Your task to perform on an android device: Open the calendar and show me this week's events Image 0: 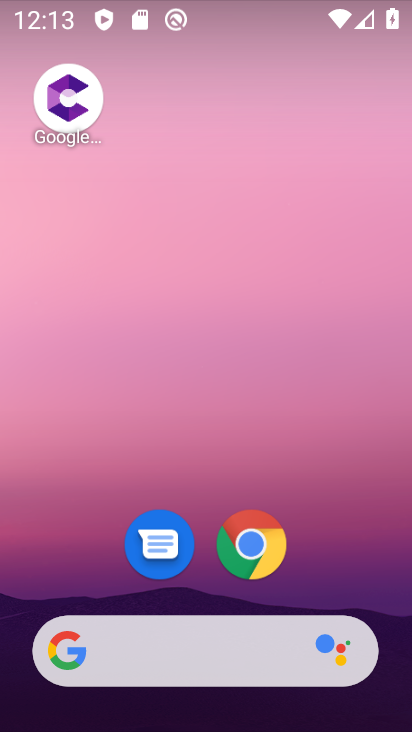
Step 0: drag from (337, 524) to (309, 36)
Your task to perform on an android device: Open the calendar and show me this week's events Image 1: 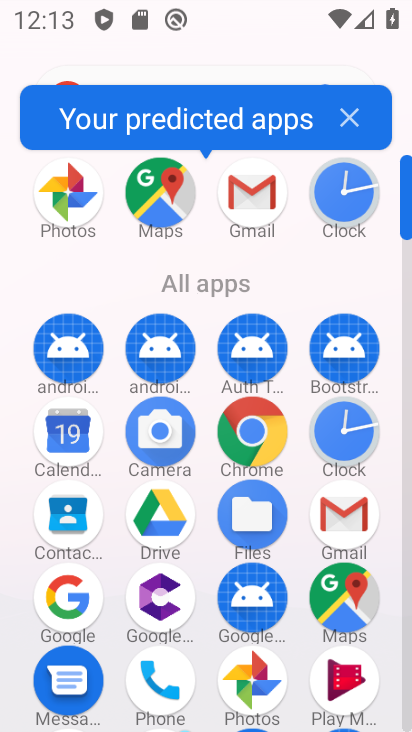
Step 1: click (49, 435)
Your task to perform on an android device: Open the calendar and show me this week's events Image 2: 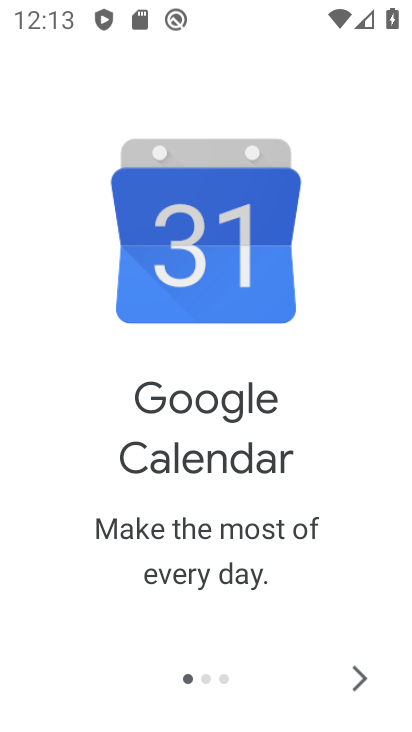
Step 2: click (360, 672)
Your task to perform on an android device: Open the calendar and show me this week's events Image 3: 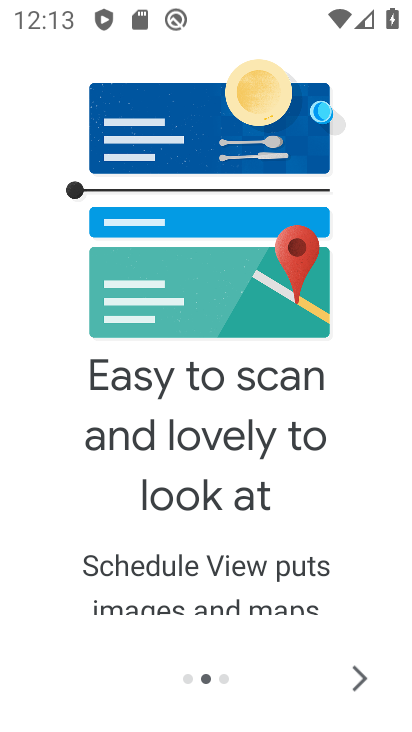
Step 3: click (360, 671)
Your task to perform on an android device: Open the calendar and show me this week's events Image 4: 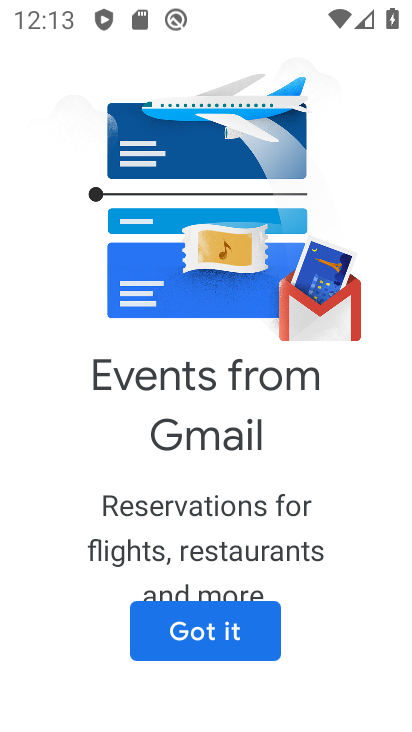
Step 4: click (244, 622)
Your task to perform on an android device: Open the calendar and show me this week's events Image 5: 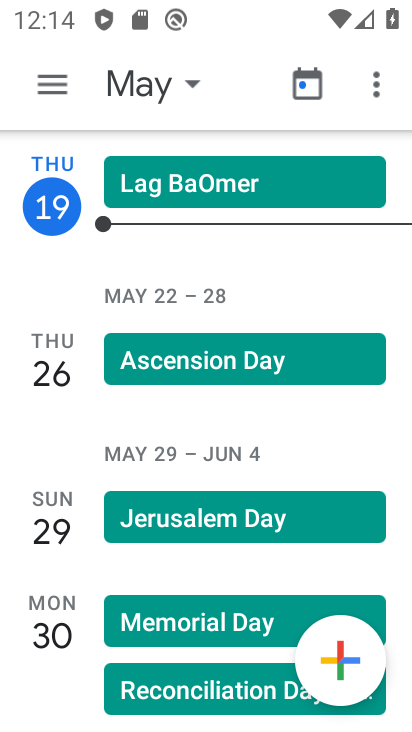
Step 5: click (169, 92)
Your task to perform on an android device: Open the calendar and show me this week's events Image 6: 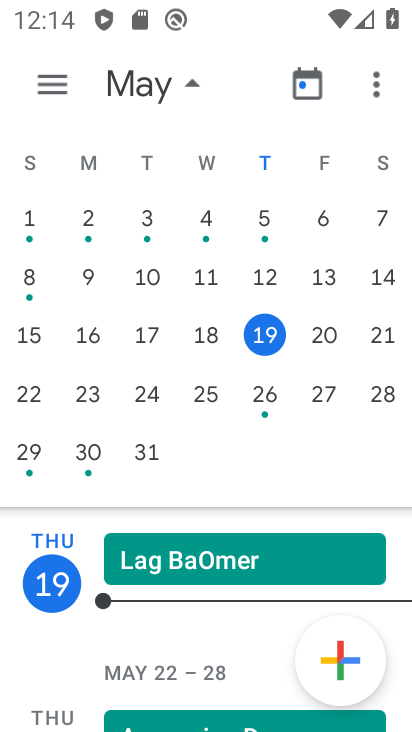
Step 6: task complete